Your task to perform on an android device: What is the news today? Image 0: 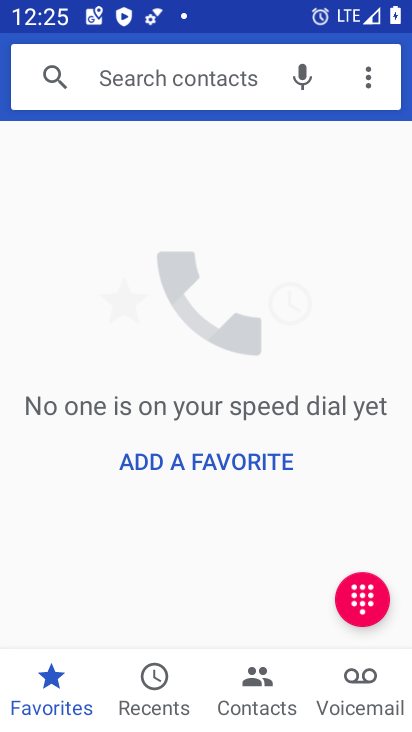
Step 0: press home button
Your task to perform on an android device: What is the news today? Image 1: 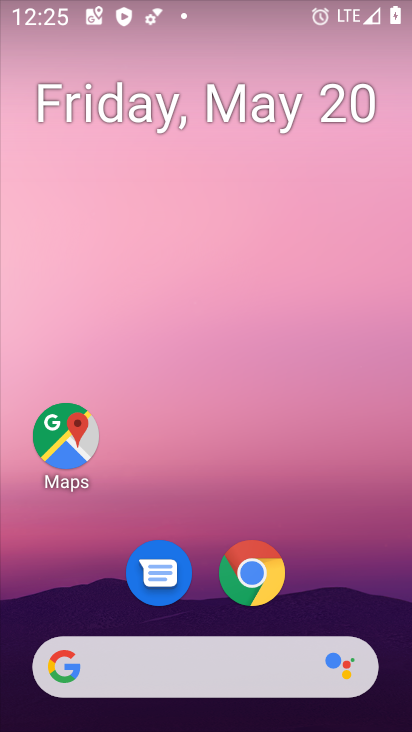
Step 1: drag from (366, 559) to (358, 20)
Your task to perform on an android device: What is the news today? Image 2: 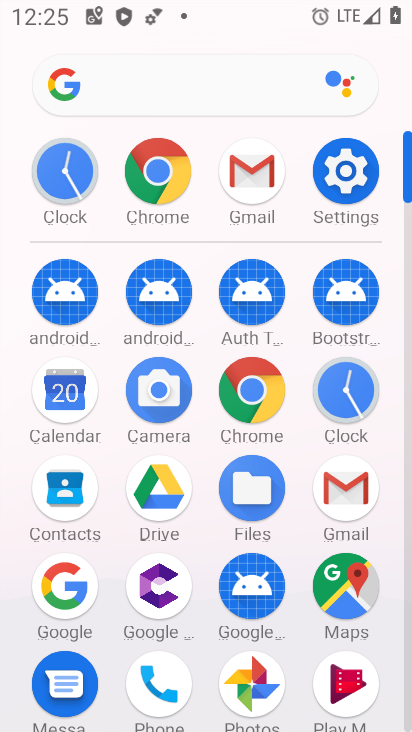
Step 2: click (75, 570)
Your task to perform on an android device: What is the news today? Image 3: 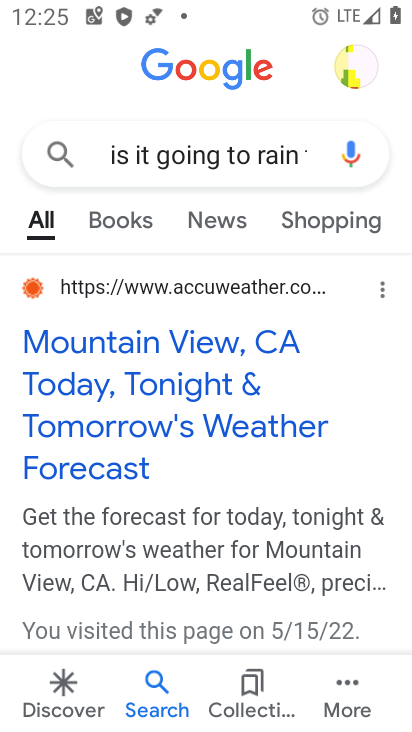
Step 3: click (288, 160)
Your task to perform on an android device: What is the news today? Image 4: 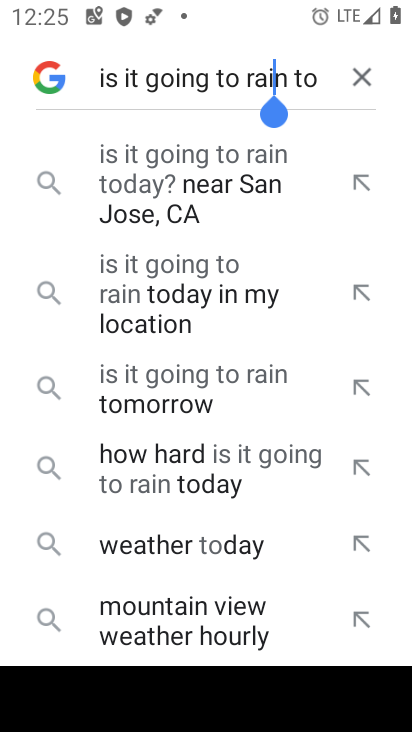
Step 4: click (355, 73)
Your task to perform on an android device: What is the news today? Image 5: 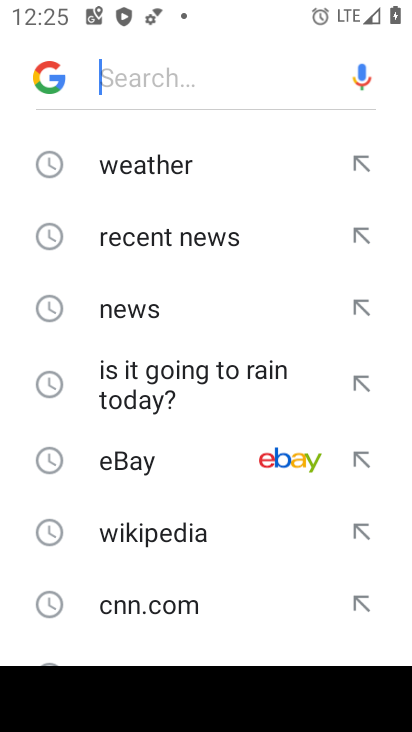
Step 5: click (158, 307)
Your task to perform on an android device: What is the news today? Image 6: 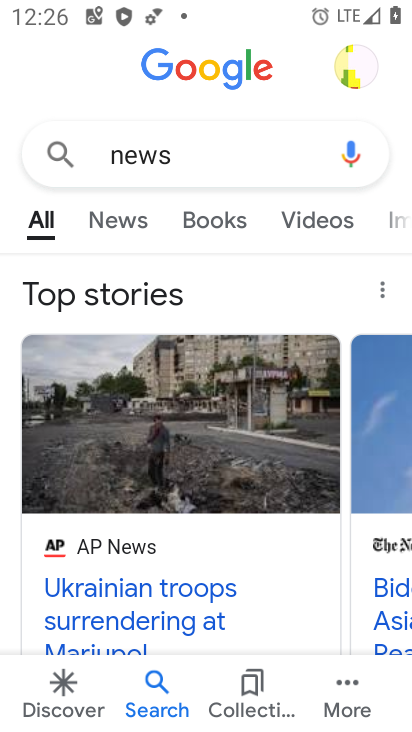
Step 6: task complete